Your task to perform on an android device: change the clock display to digital Image 0: 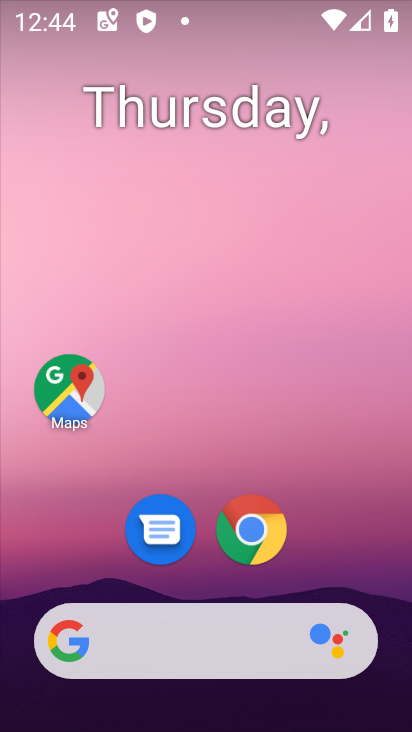
Step 0: drag from (226, 724) to (229, 78)
Your task to perform on an android device: change the clock display to digital Image 1: 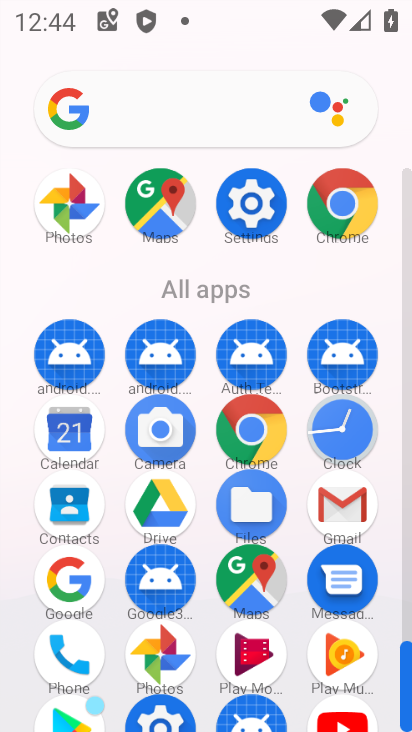
Step 1: click (343, 416)
Your task to perform on an android device: change the clock display to digital Image 2: 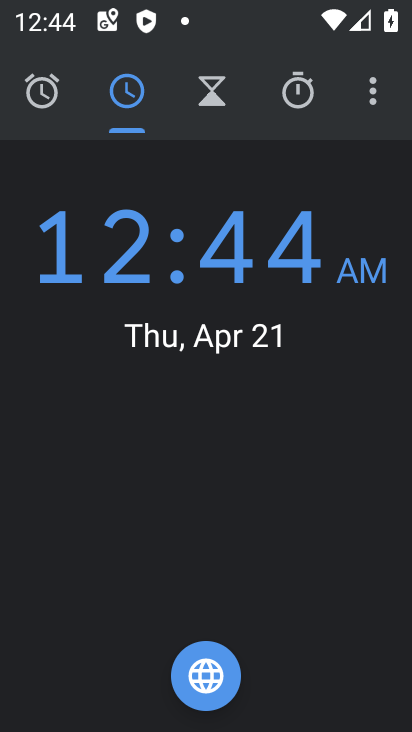
Step 2: click (375, 104)
Your task to perform on an android device: change the clock display to digital Image 3: 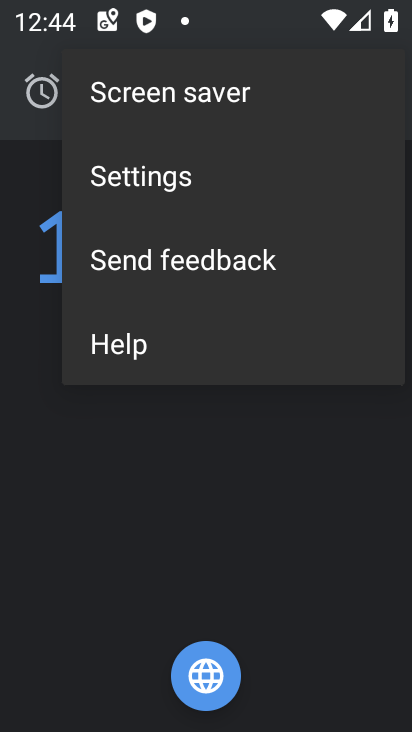
Step 3: click (169, 172)
Your task to perform on an android device: change the clock display to digital Image 4: 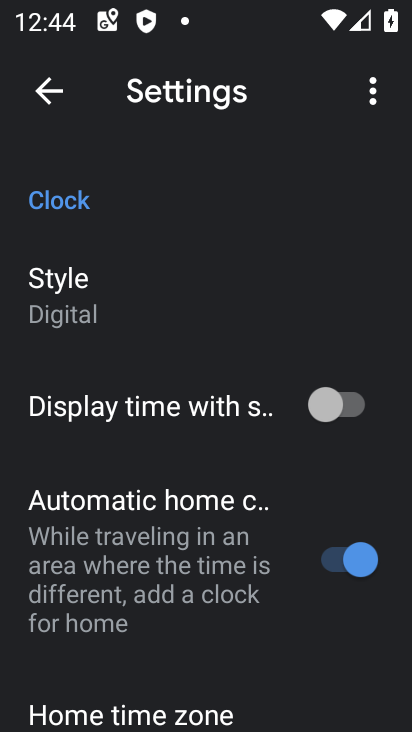
Step 4: task complete